Your task to perform on an android device: Do I have any events today? Image 0: 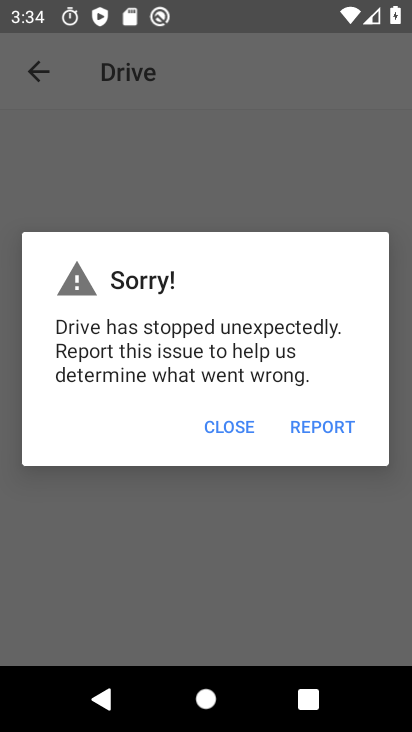
Step 0: press back button
Your task to perform on an android device: Do I have any events today? Image 1: 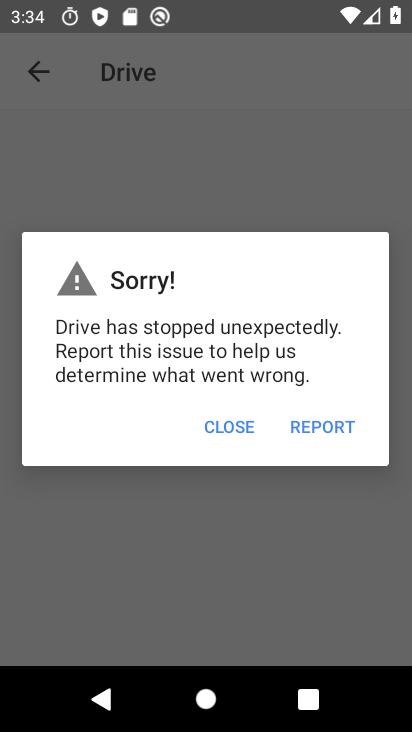
Step 1: press home button
Your task to perform on an android device: Do I have any events today? Image 2: 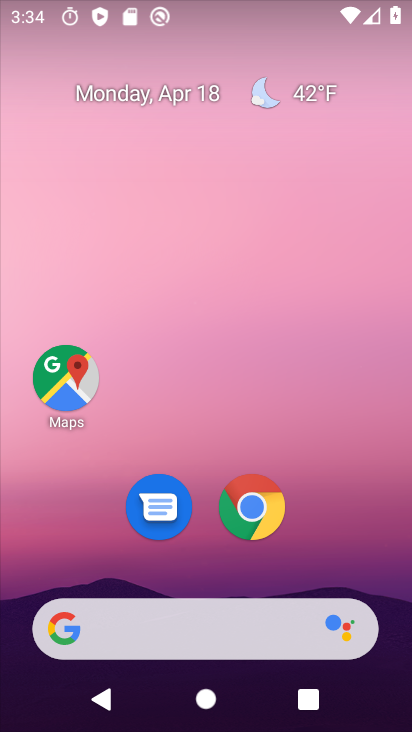
Step 2: drag from (326, 511) to (248, 55)
Your task to perform on an android device: Do I have any events today? Image 3: 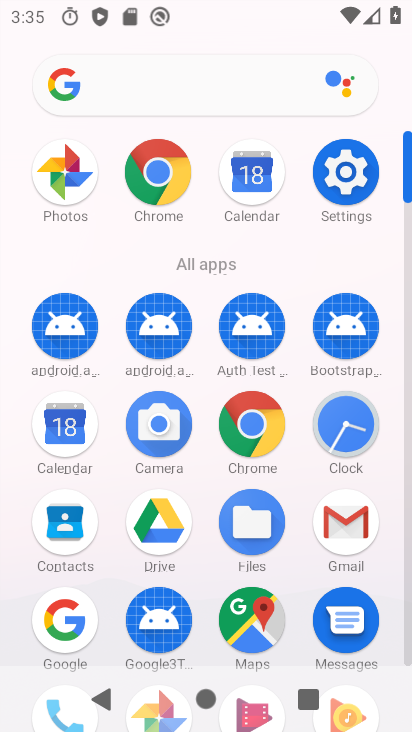
Step 3: click (60, 433)
Your task to perform on an android device: Do I have any events today? Image 4: 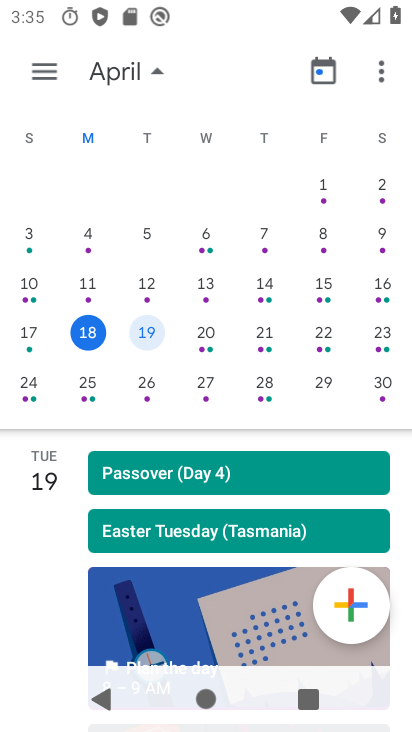
Step 4: click (88, 334)
Your task to perform on an android device: Do I have any events today? Image 5: 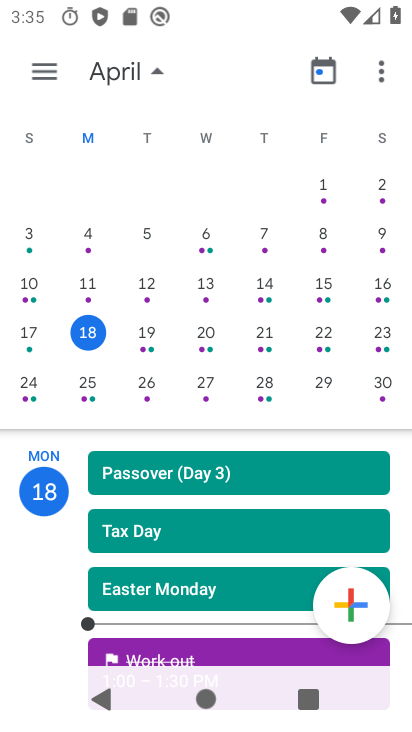
Step 5: task complete